Your task to perform on an android device: What's the weather today? Image 0: 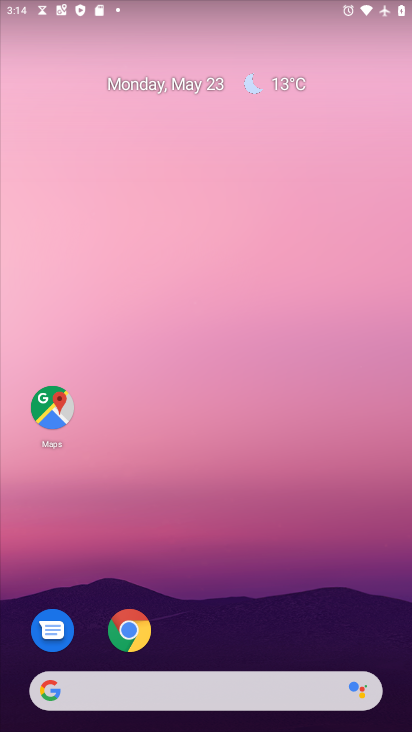
Step 0: click (290, 83)
Your task to perform on an android device: What's the weather today? Image 1: 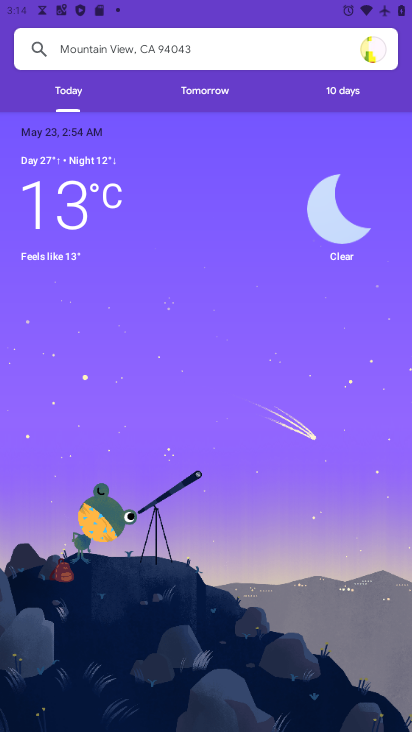
Step 1: task complete